Your task to perform on an android device: make emails show in primary in the gmail app Image 0: 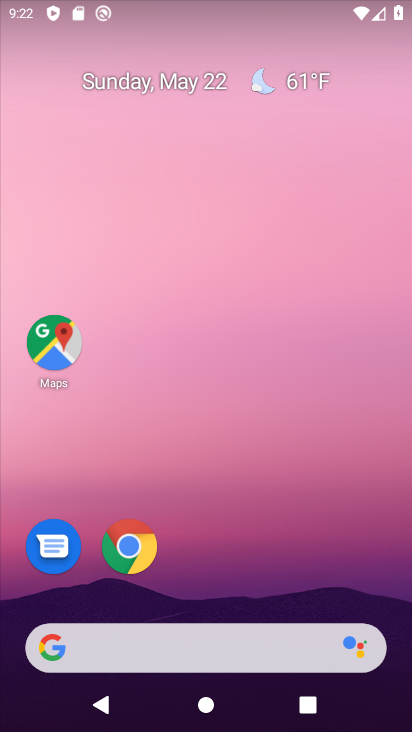
Step 0: drag from (190, 639) to (240, 60)
Your task to perform on an android device: make emails show in primary in the gmail app Image 1: 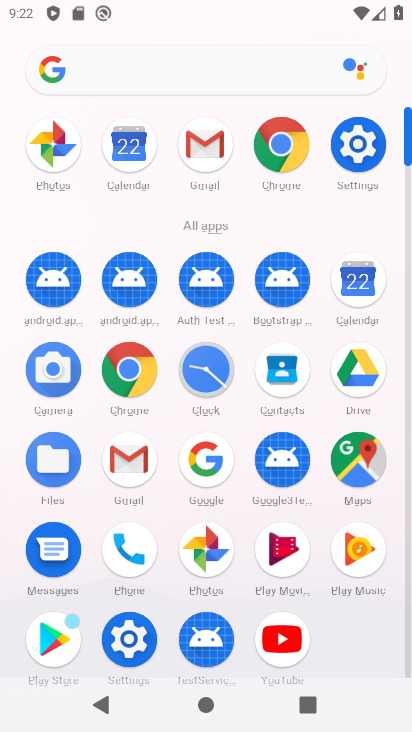
Step 1: click (200, 148)
Your task to perform on an android device: make emails show in primary in the gmail app Image 2: 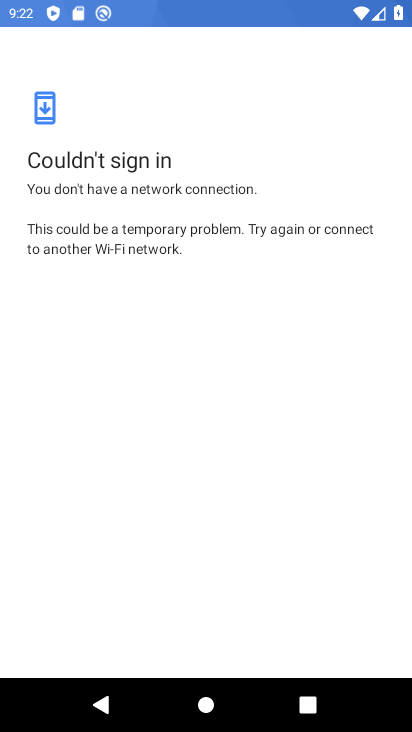
Step 2: task complete